Your task to perform on an android device: Go to CNN.com Image 0: 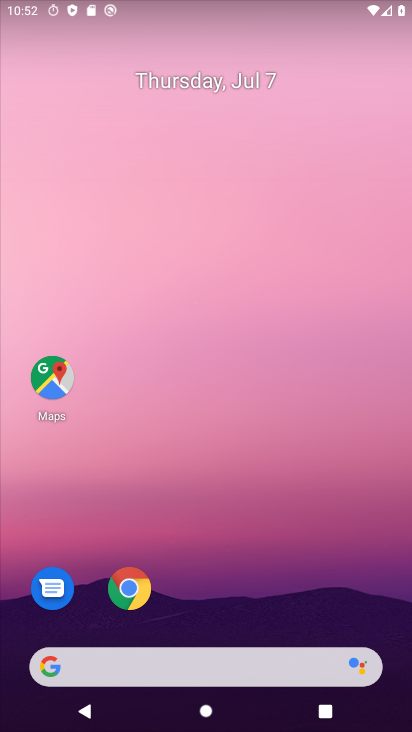
Step 0: drag from (254, 583) to (162, 66)
Your task to perform on an android device: Go to CNN.com Image 1: 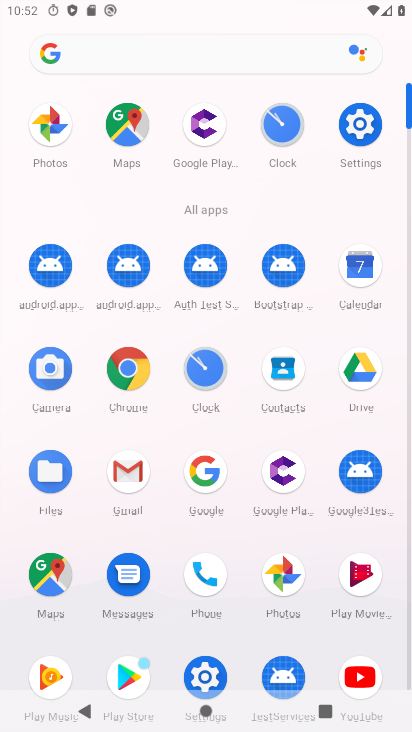
Step 1: click (122, 359)
Your task to perform on an android device: Go to CNN.com Image 2: 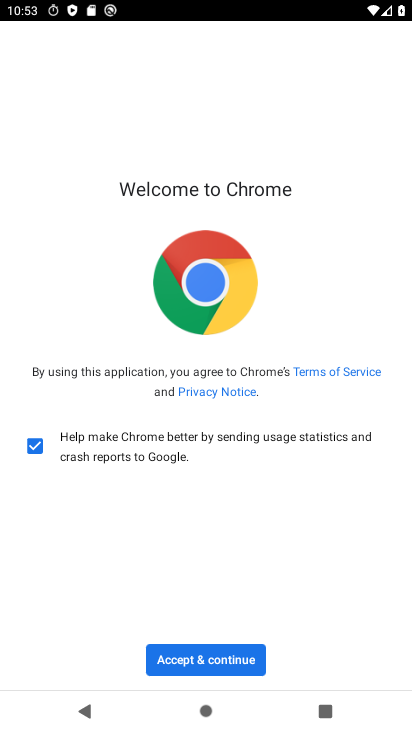
Step 2: click (219, 660)
Your task to perform on an android device: Go to CNN.com Image 3: 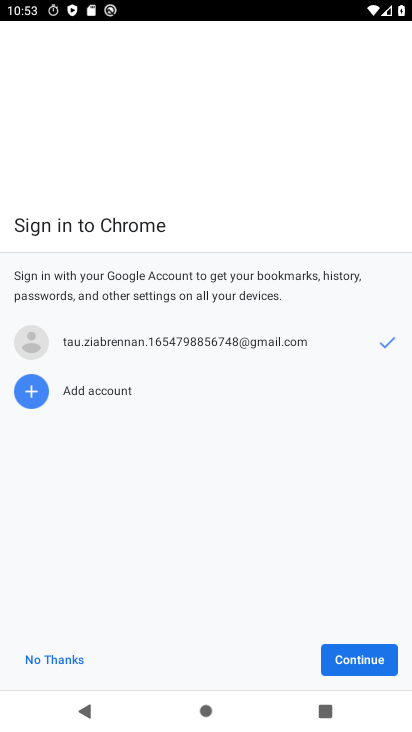
Step 3: click (376, 655)
Your task to perform on an android device: Go to CNN.com Image 4: 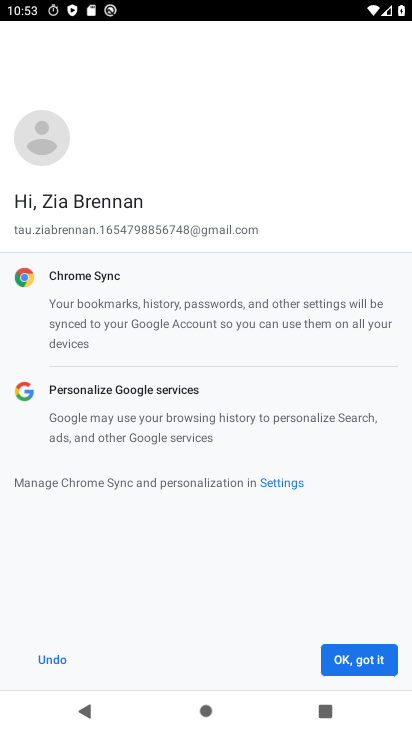
Step 4: click (370, 655)
Your task to perform on an android device: Go to CNN.com Image 5: 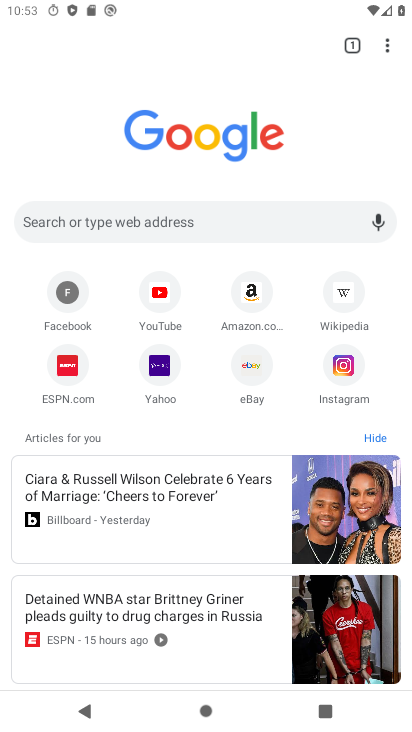
Step 5: click (268, 221)
Your task to perform on an android device: Go to CNN.com Image 6: 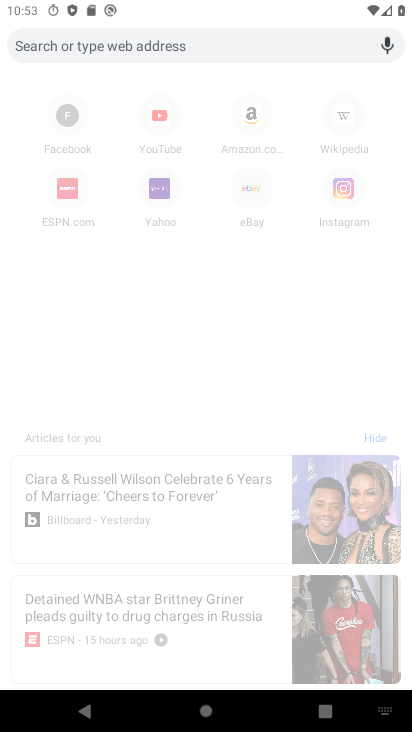
Step 6: type "CNN.com"
Your task to perform on an android device: Go to CNN.com Image 7: 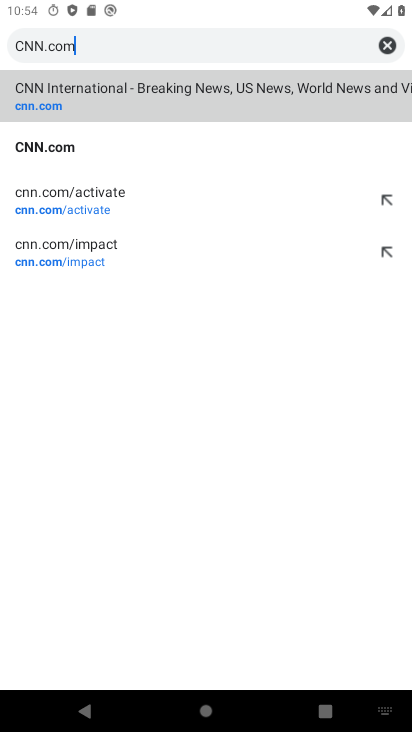
Step 7: click (47, 104)
Your task to perform on an android device: Go to CNN.com Image 8: 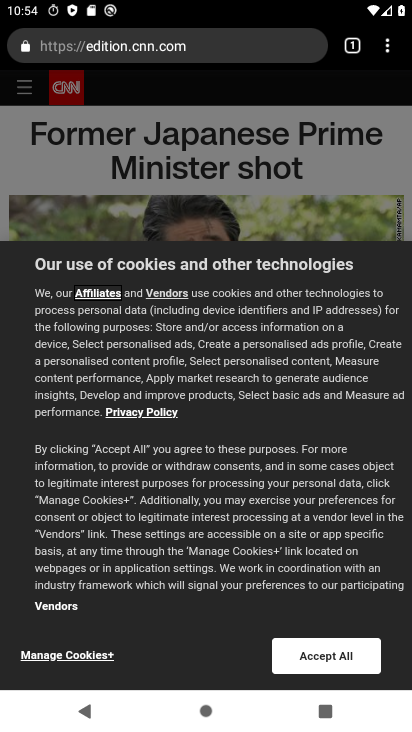
Step 8: task complete